Your task to perform on an android device: Find coffee shops on Maps Image 0: 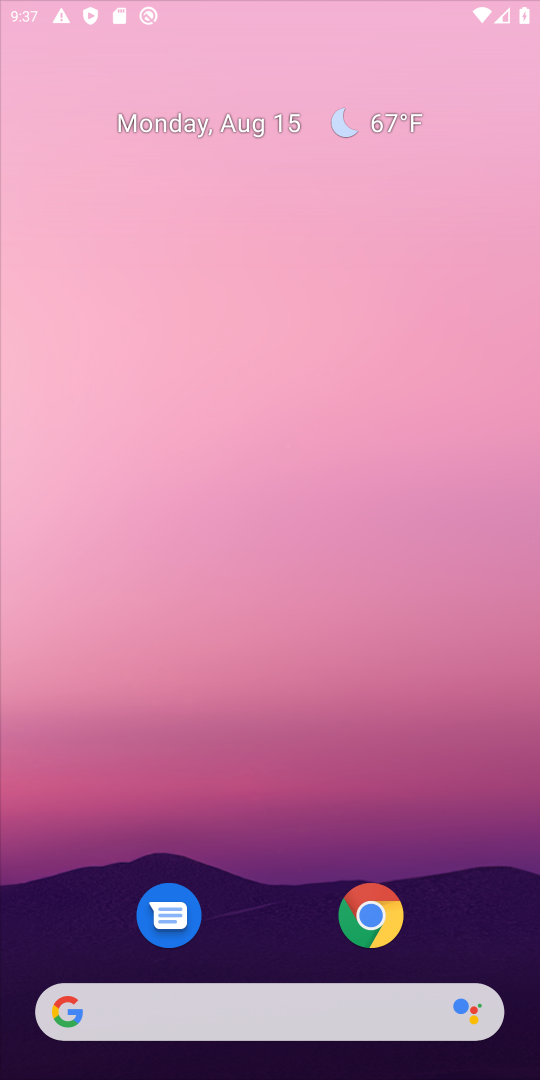
Step 0: press home button
Your task to perform on an android device: Find coffee shops on Maps Image 1: 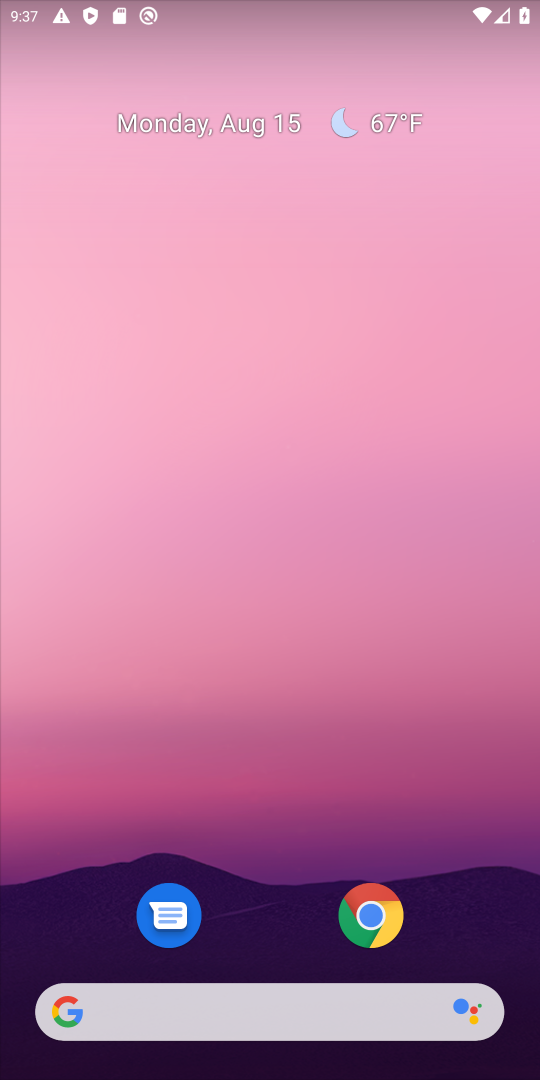
Step 1: drag from (259, 784) to (225, 96)
Your task to perform on an android device: Find coffee shops on Maps Image 2: 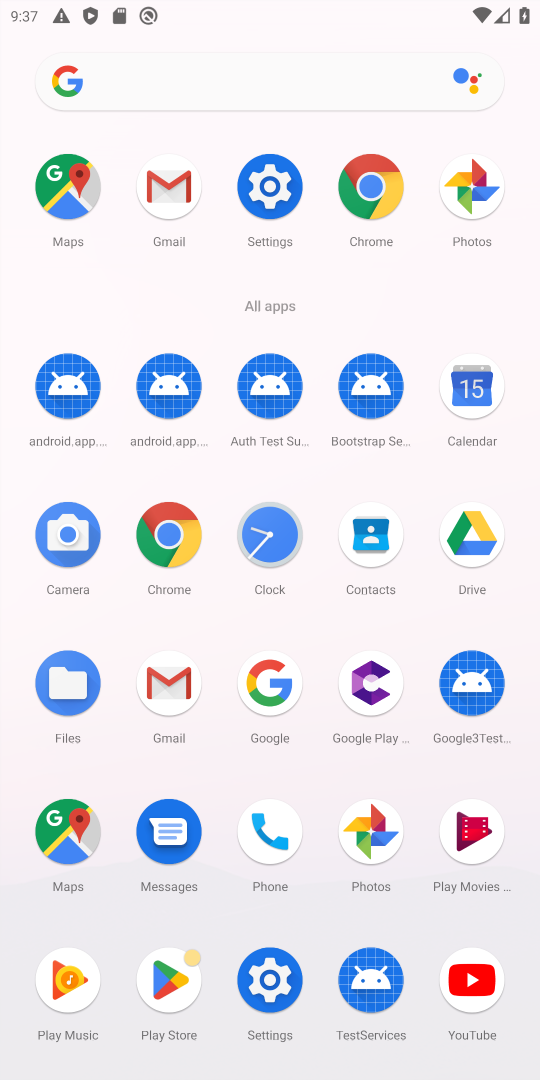
Step 2: drag from (385, 835) to (533, 656)
Your task to perform on an android device: Find coffee shops on Maps Image 3: 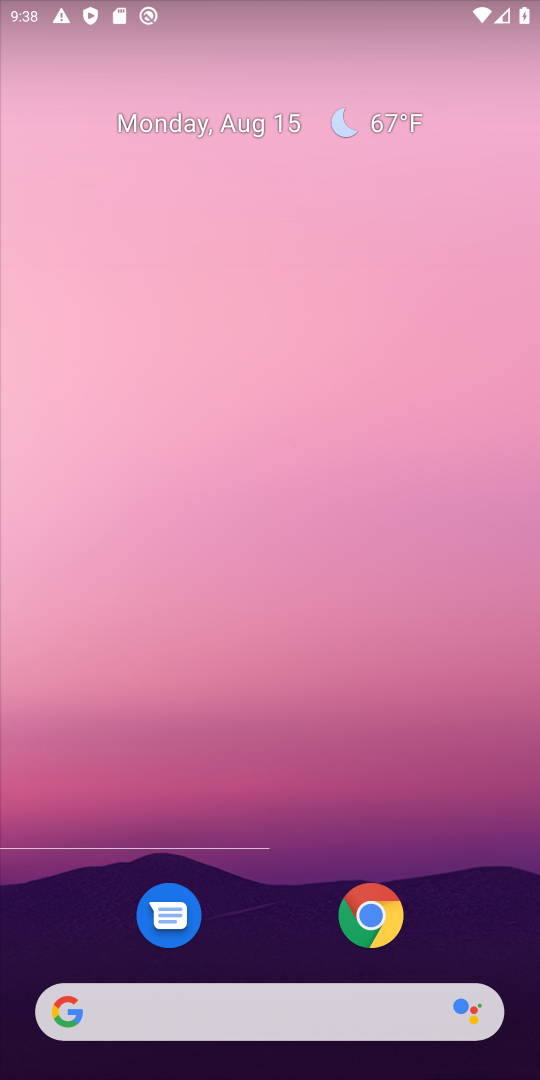
Step 3: drag from (297, 901) to (349, 166)
Your task to perform on an android device: Find coffee shops on Maps Image 4: 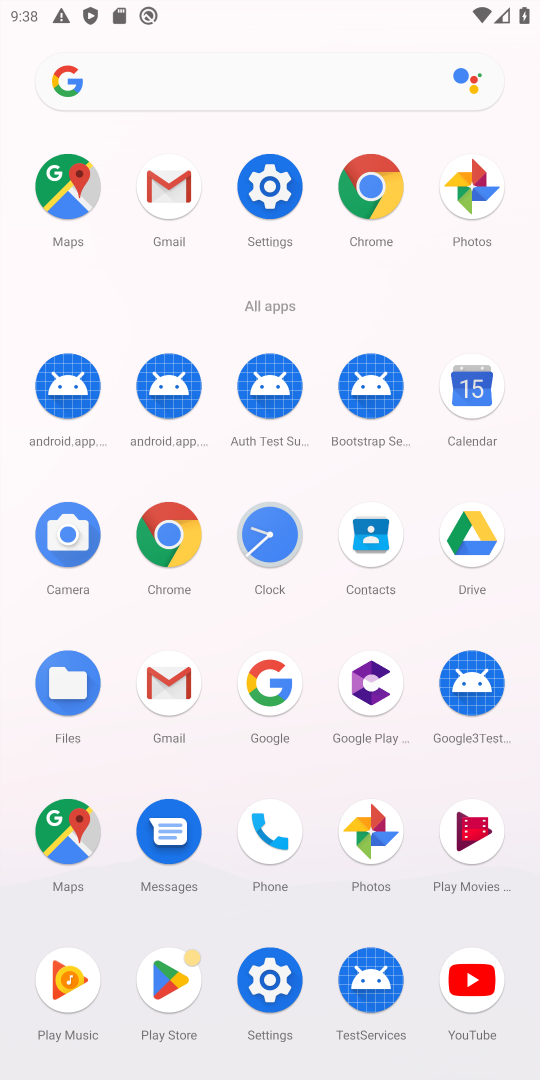
Step 4: click (81, 829)
Your task to perform on an android device: Find coffee shops on Maps Image 5: 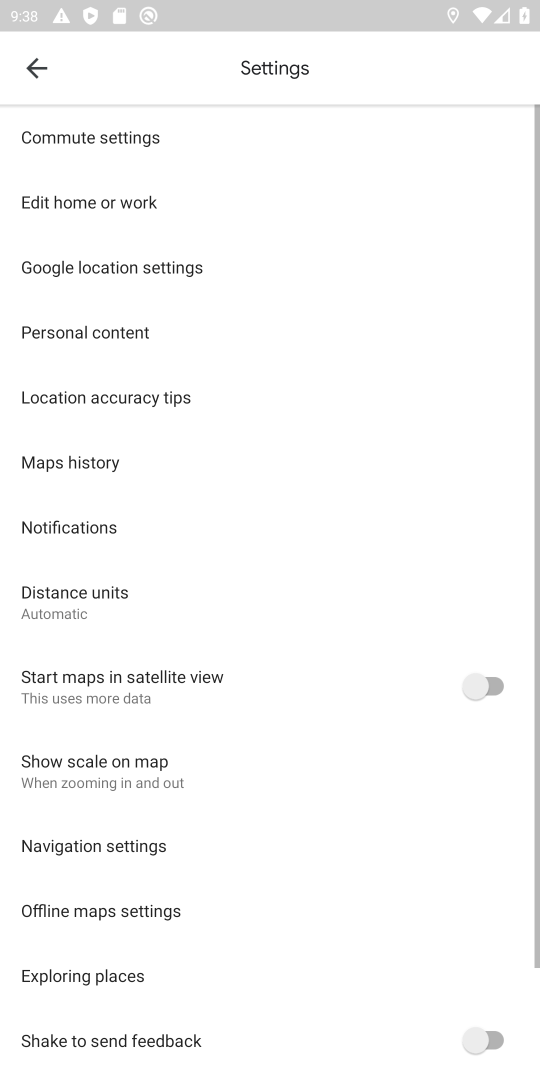
Step 5: click (37, 65)
Your task to perform on an android device: Find coffee shops on Maps Image 6: 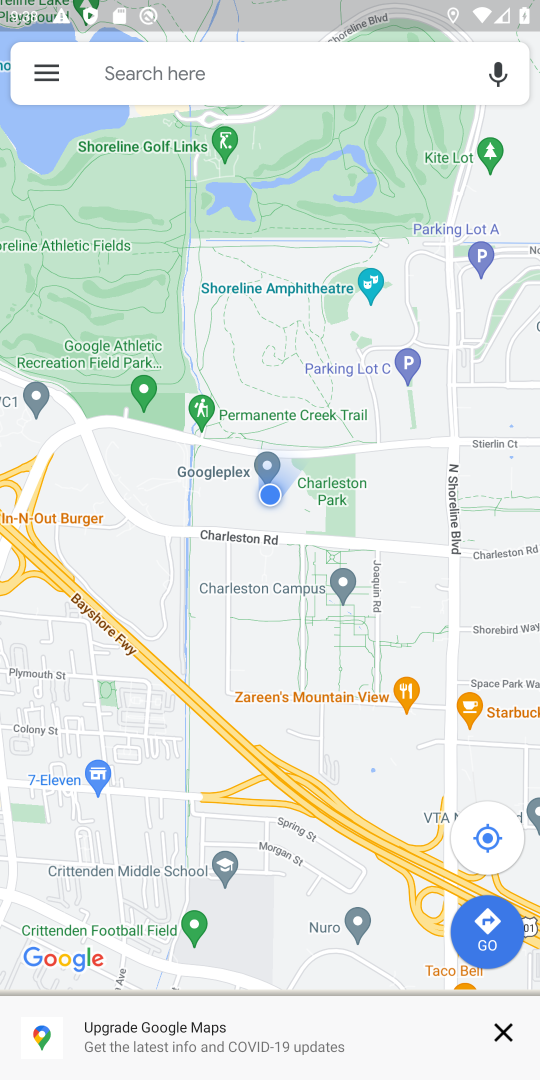
Step 6: click (250, 60)
Your task to perform on an android device: Find coffee shops on Maps Image 7: 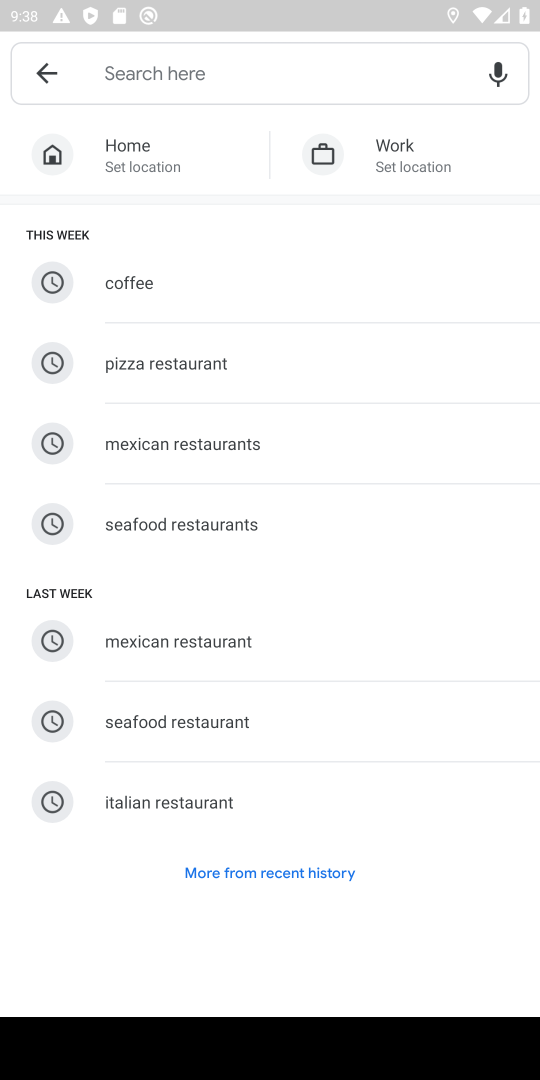
Step 7: click (169, 68)
Your task to perform on an android device: Find coffee shops on Maps Image 8: 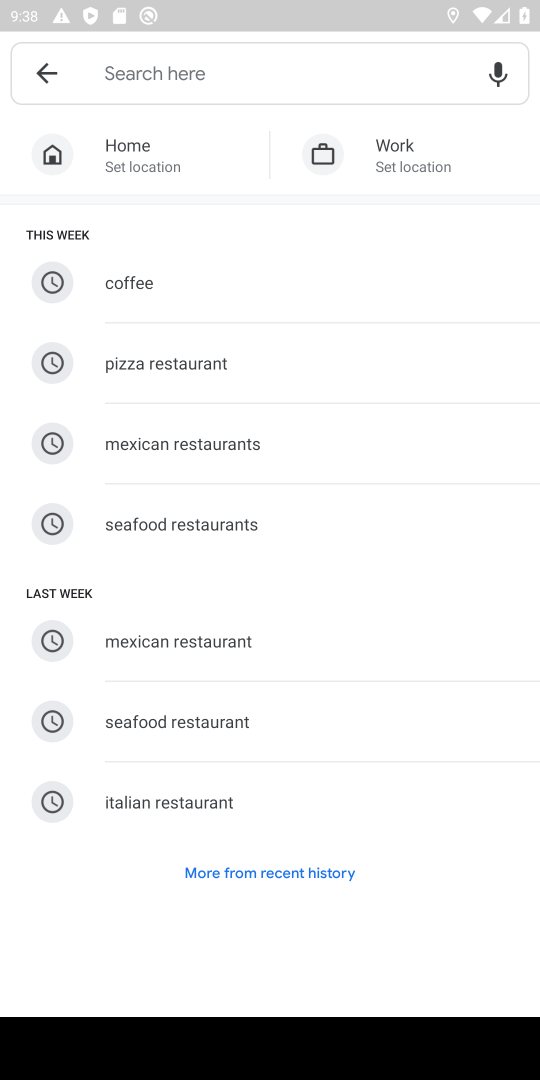
Step 8: type " coffee shops"
Your task to perform on an android device: Find coffee shops on Maps Image 9: 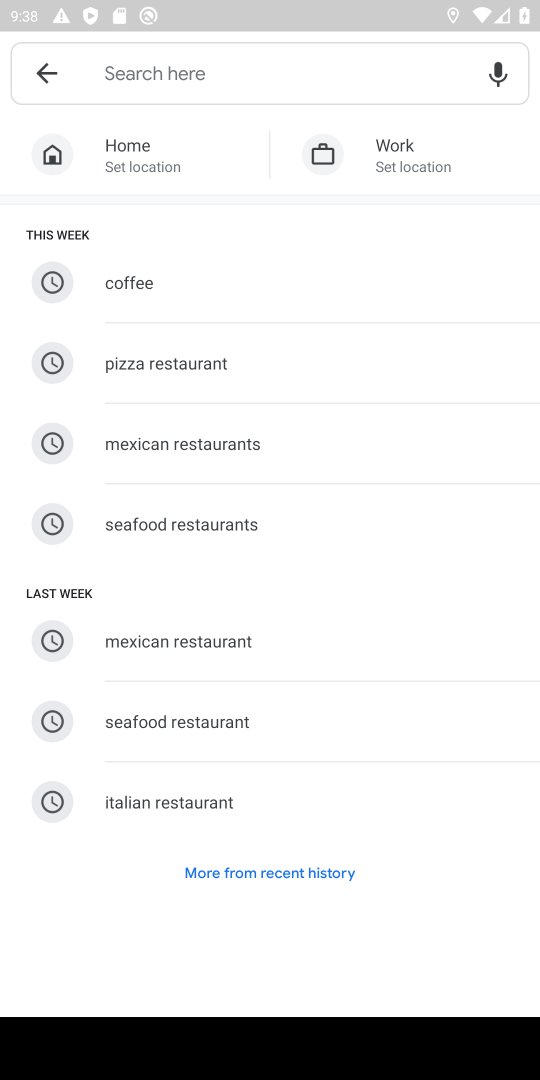
Step 9: click (178, 73)
Your task to perform on an android device: Find coffee shops on Maps Image 10: 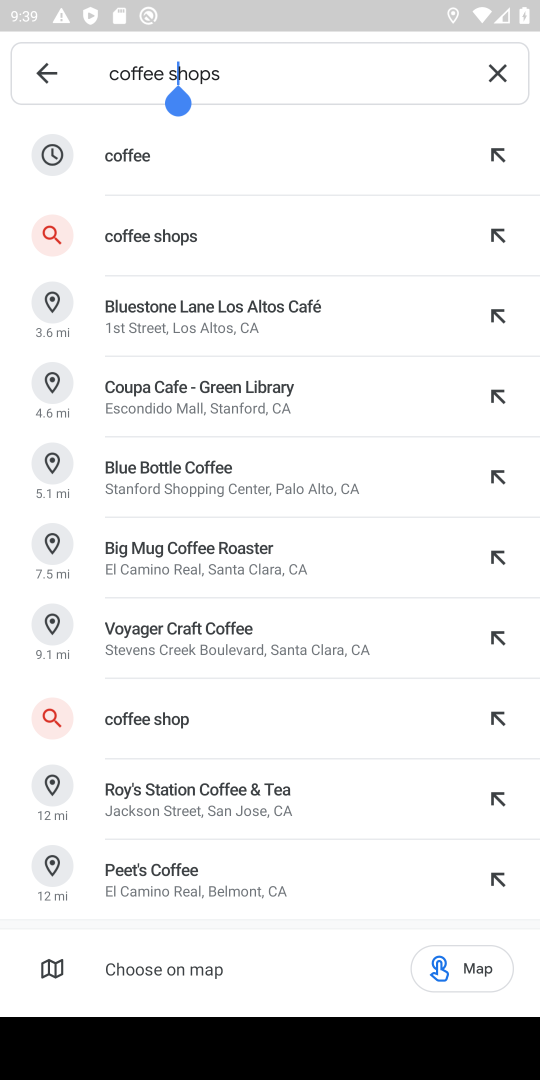
Step 10: click (122, 239)
Your task to perform on an android device: Find coffee shops on Maps Image 11: 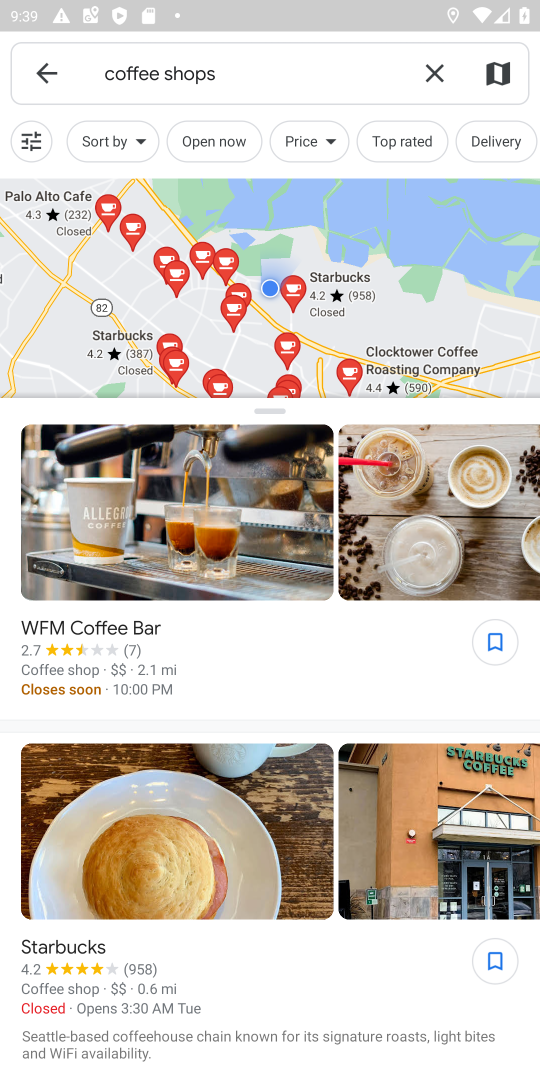
Step 11: task complete